Your task to perform on an android device: snooze an email in the gmail app Image 0: 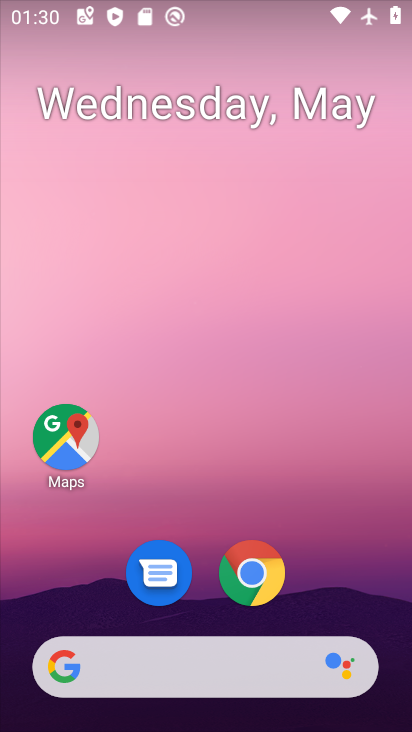
Step 0: drag from (348, 559) to (335, 253)
Your task to perform on an android device: snooze an email in the gmail app Image 1: 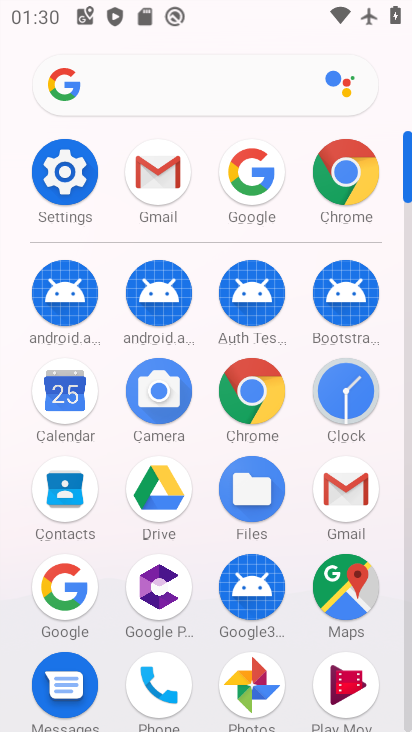
Step 1: click (365, 502)
Your task to perform on an android device: snooze an email in the gmail app Image 2: 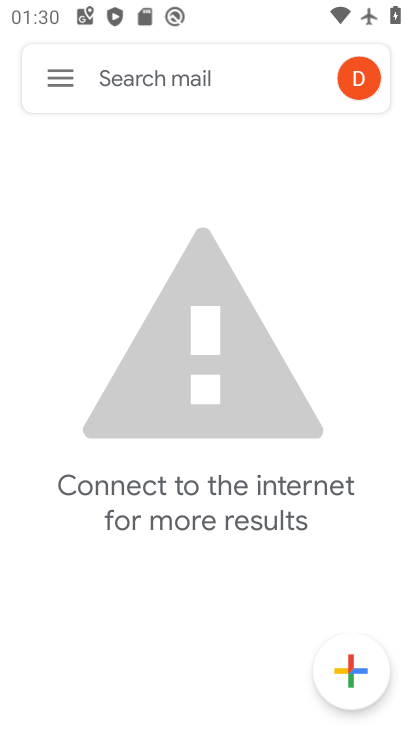
Step 2: click (57, 72)
Your task to perform on an android device: snooze an email in the gmail app Image 3: 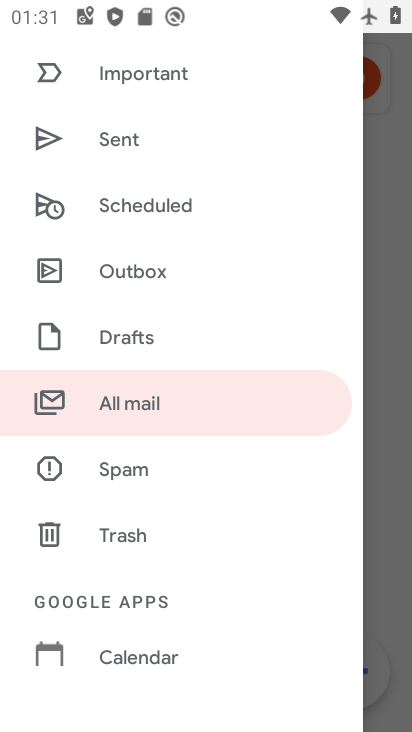
Step 3: drag from (173, 157) to (204, 520)
Your task to perform on an android device: snooze an email in the gmail app Image 4: 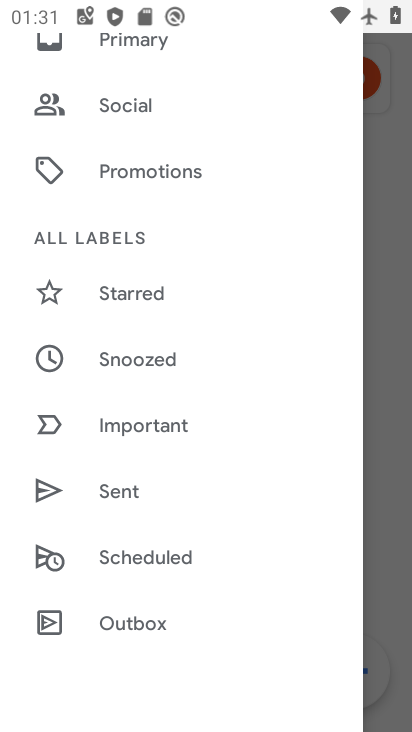
Step 4: click (158, 355)
Your task to perform on an android device: snooze an email in the gmail app Image 5: 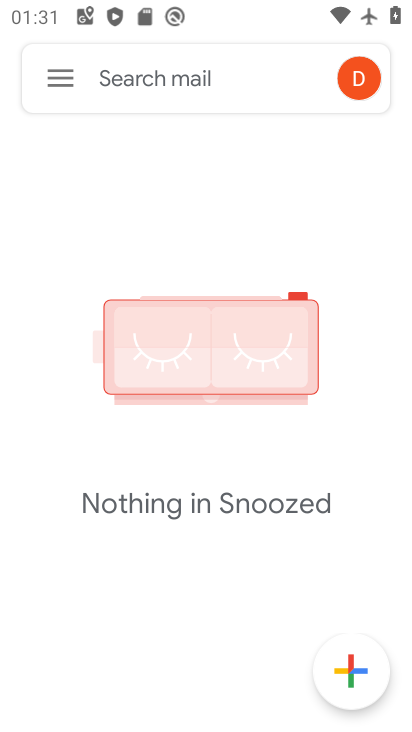
Step 5: task complete